Your task to perform on an android device: turn on the 12-hour format for clock Image 0: 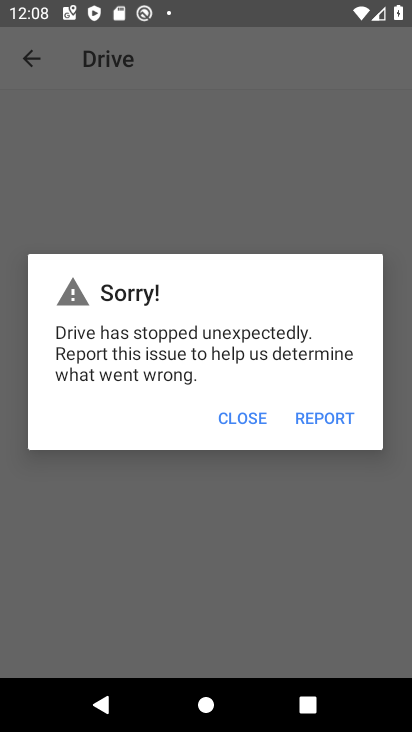
Step 0: press home button
Your task to perform on an android device: turn on the 12-hour format for clock Image 1: 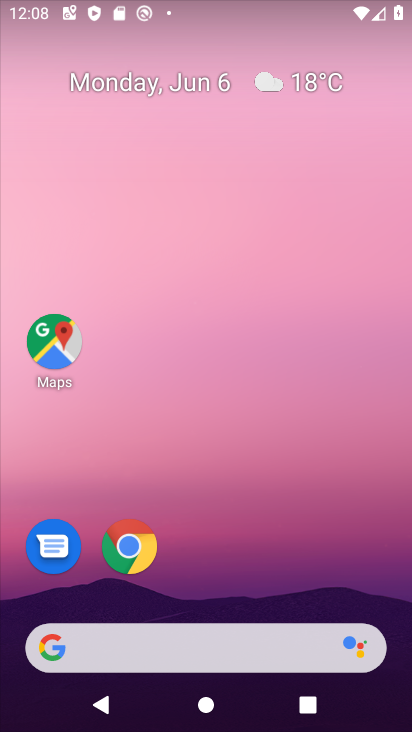
Step 1: drag from (227, 529) to (229, 119)
Your task to perform on an android device: turn on the 12-hour format for clock Image 2: 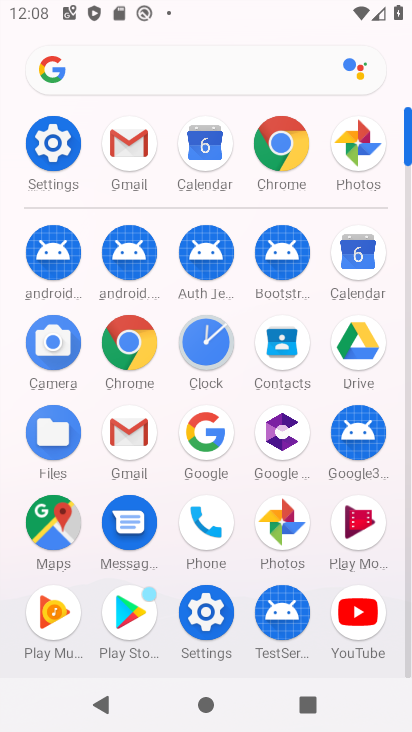
Step 2: click (206, 334)
Your task to perform on an android device: turn on the 12-hour format for clock Image 3: 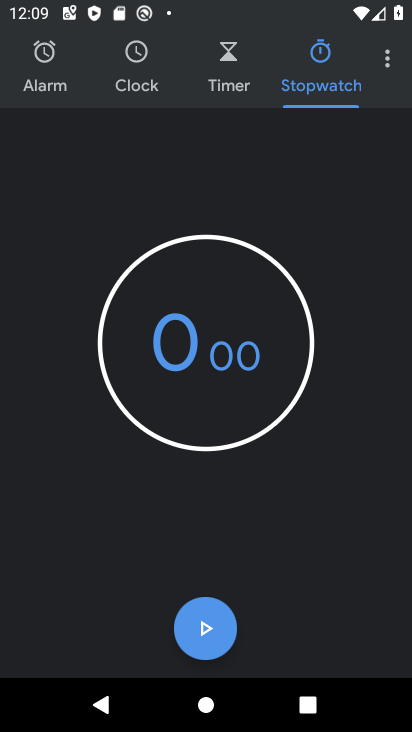
Step 3: click (389, 53)
Your task to perform on an android device: turn on the 12-hour format for clock Image 4: 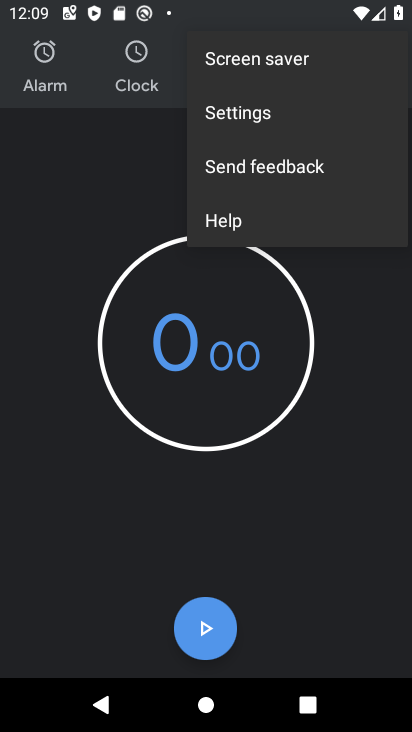
Step 4: click (265, 113)
Your task to perform on an android device: turn on the 12-hour format for clock Image 5: 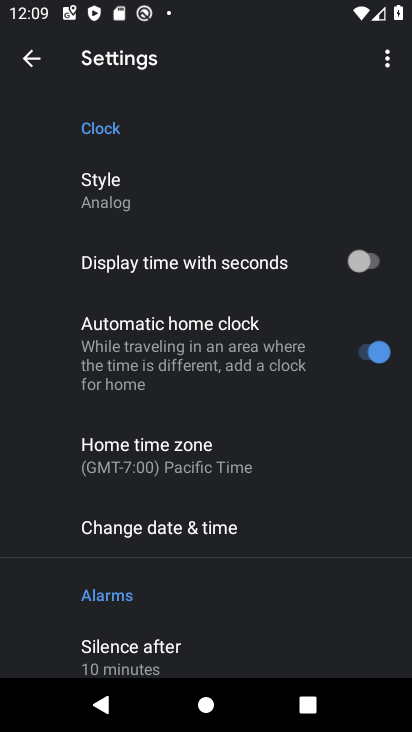
Step 5: click (304, 519)
Your task to perform on an android device: turn on the 12-hour format for clock Image 6: 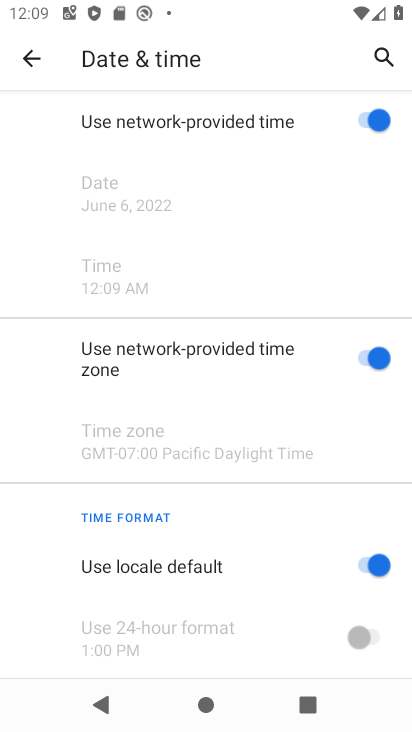
Step 6: task complete